Your task to perform on an android device: Add "macbook pro 15 inch" to the cart on ebay, then select checkout. Image 0: 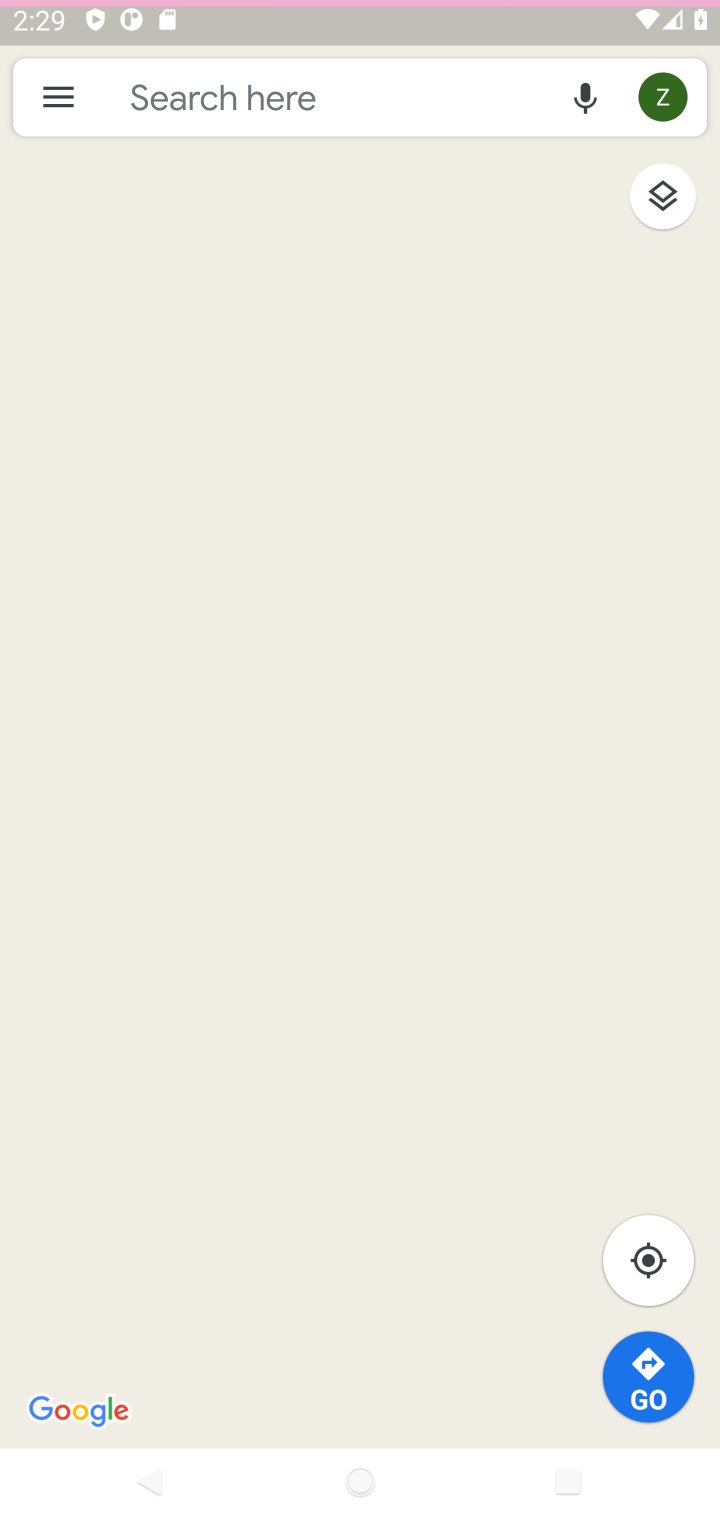
Step 0: press home button
Your task to perform on an android device: Add "macbook pro 15 inch" to the cart on ebay, then select checkout. Image 1: 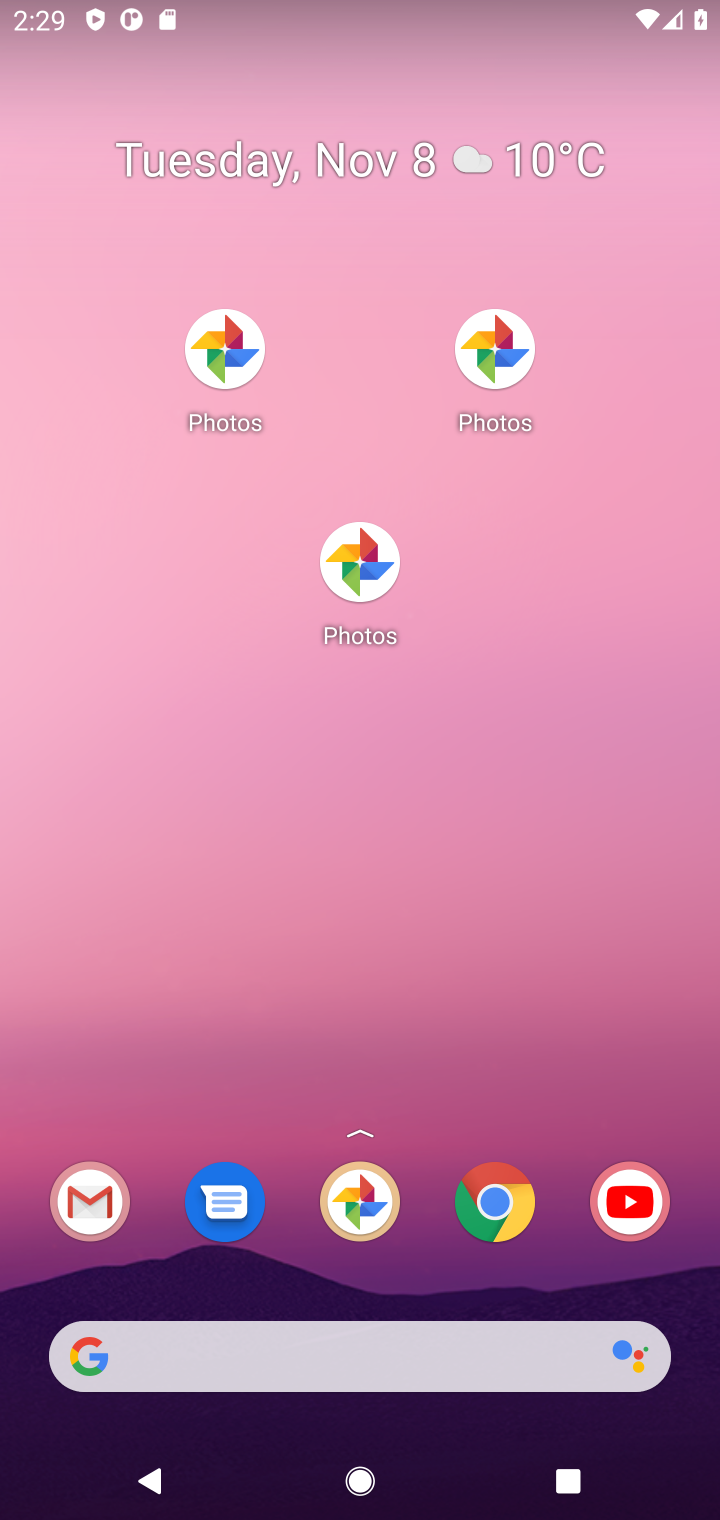
Step 1: drag from (415, 1147) to (431, 479)
Your task to perform on an android device: Add "macbook pro 15 inch" to the cart on ebay, then select checkout. Image 2: 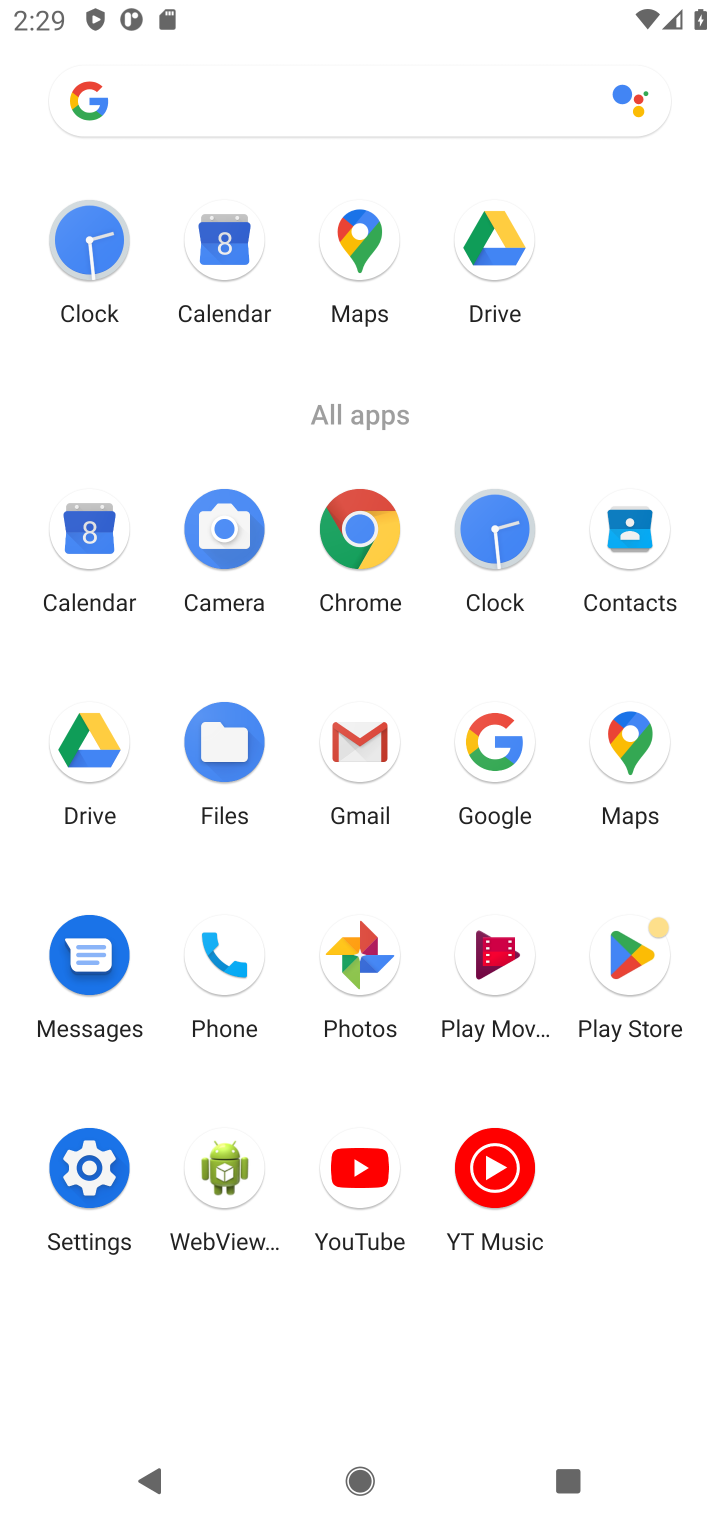
Step 2: click (503, 760)
Your task to perform on an android device: Add "macbook pro 15 inch" to the cart on ebay, then select checkout. Image 3: 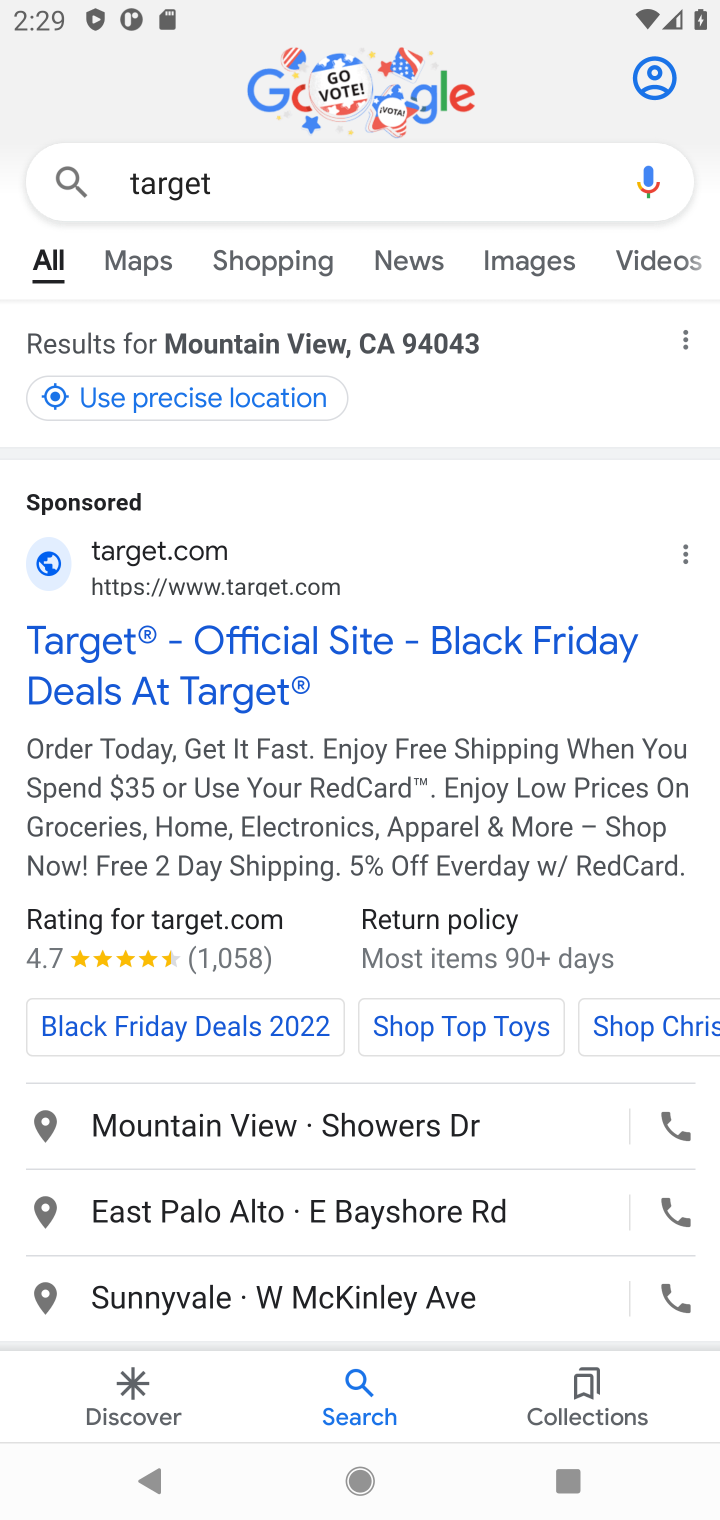
Step 3: click (477, 192)
Your task to perform on an android device: Add "macbook pro 15 inch" to the cart on ebay, then select checkout. Image 4: 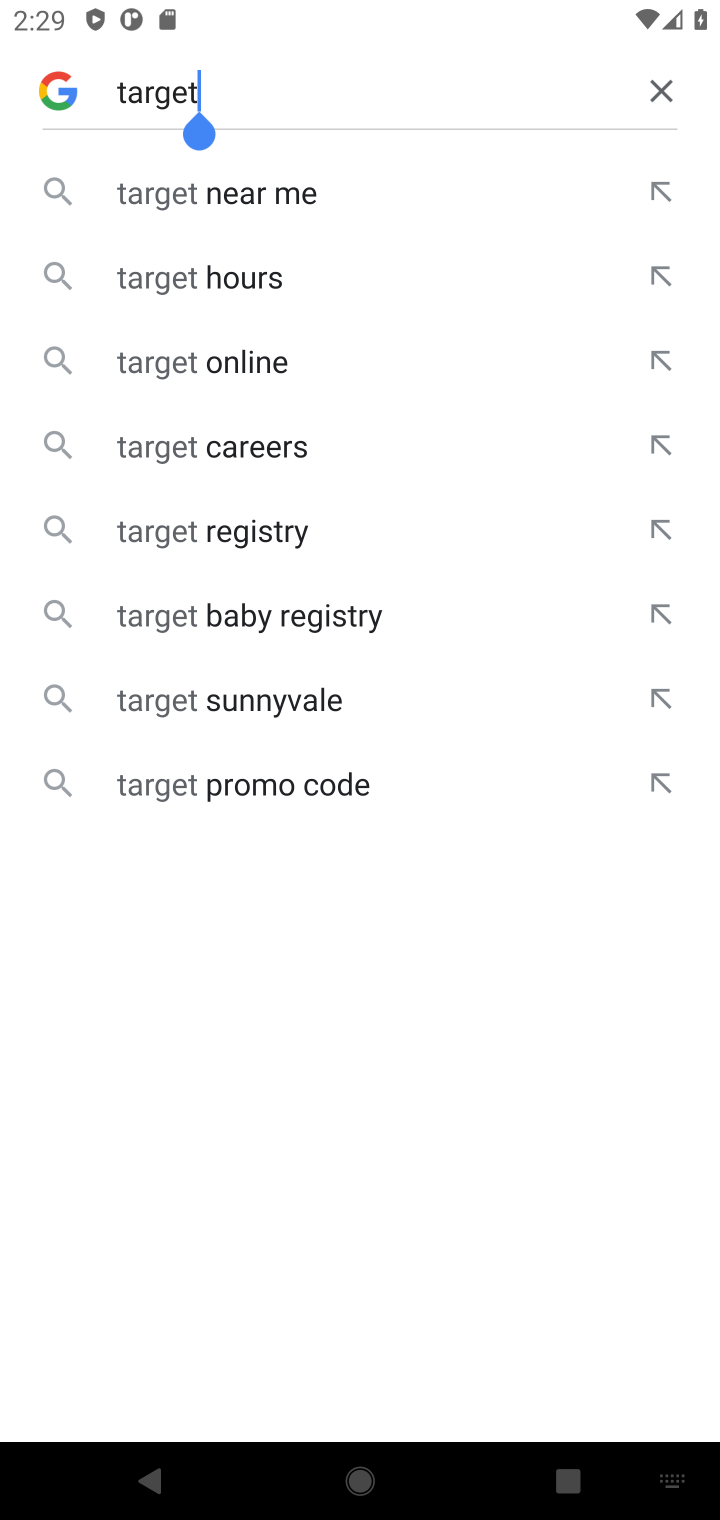
Step 4: click (659, 92)
Your task to perform on an android device: Add "macbook pro 15 inch" to the cart on ebay, then select checkout. Image 5: 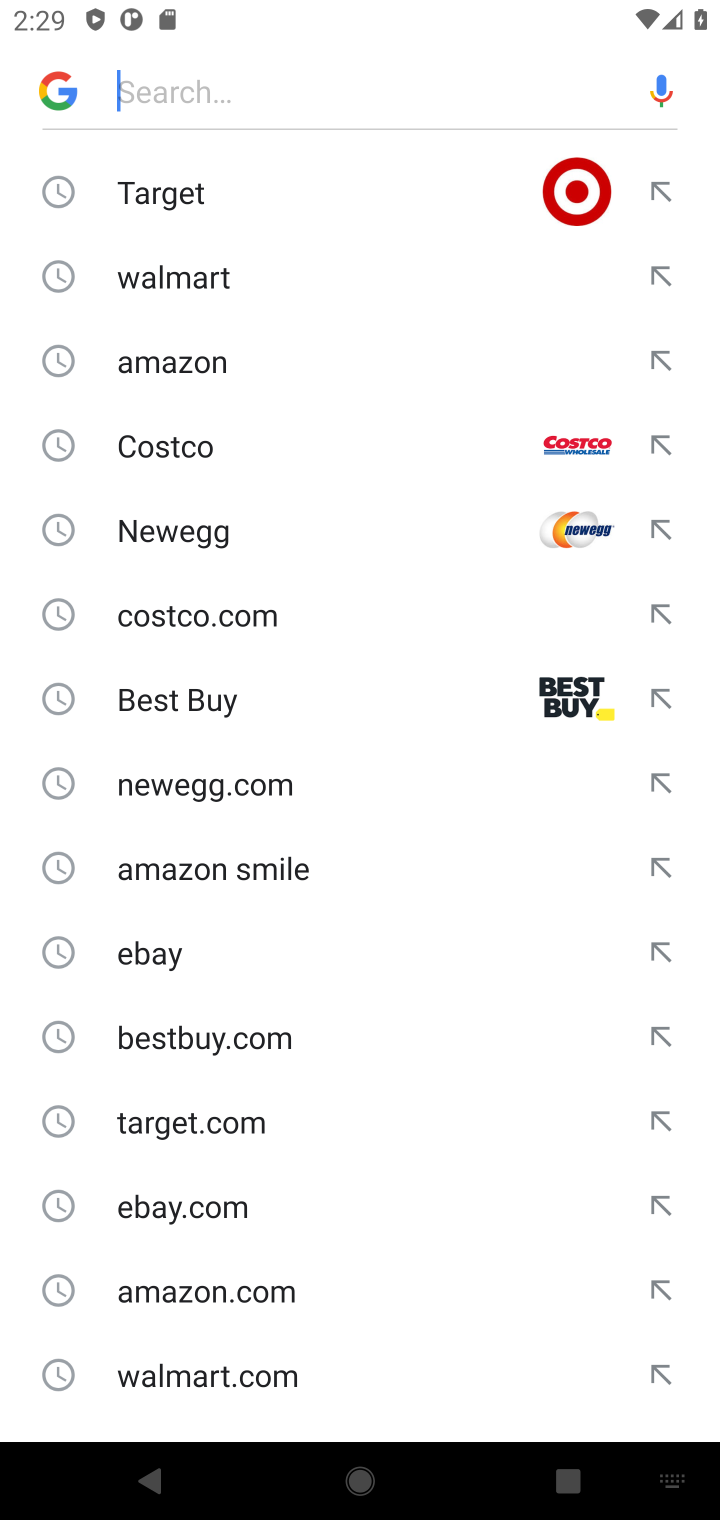
Step 5: type "ebay"
Your task to perform on an android device: Add "macbook pro 15 inch" to the cart on ebay, then select checkout. Image 6: 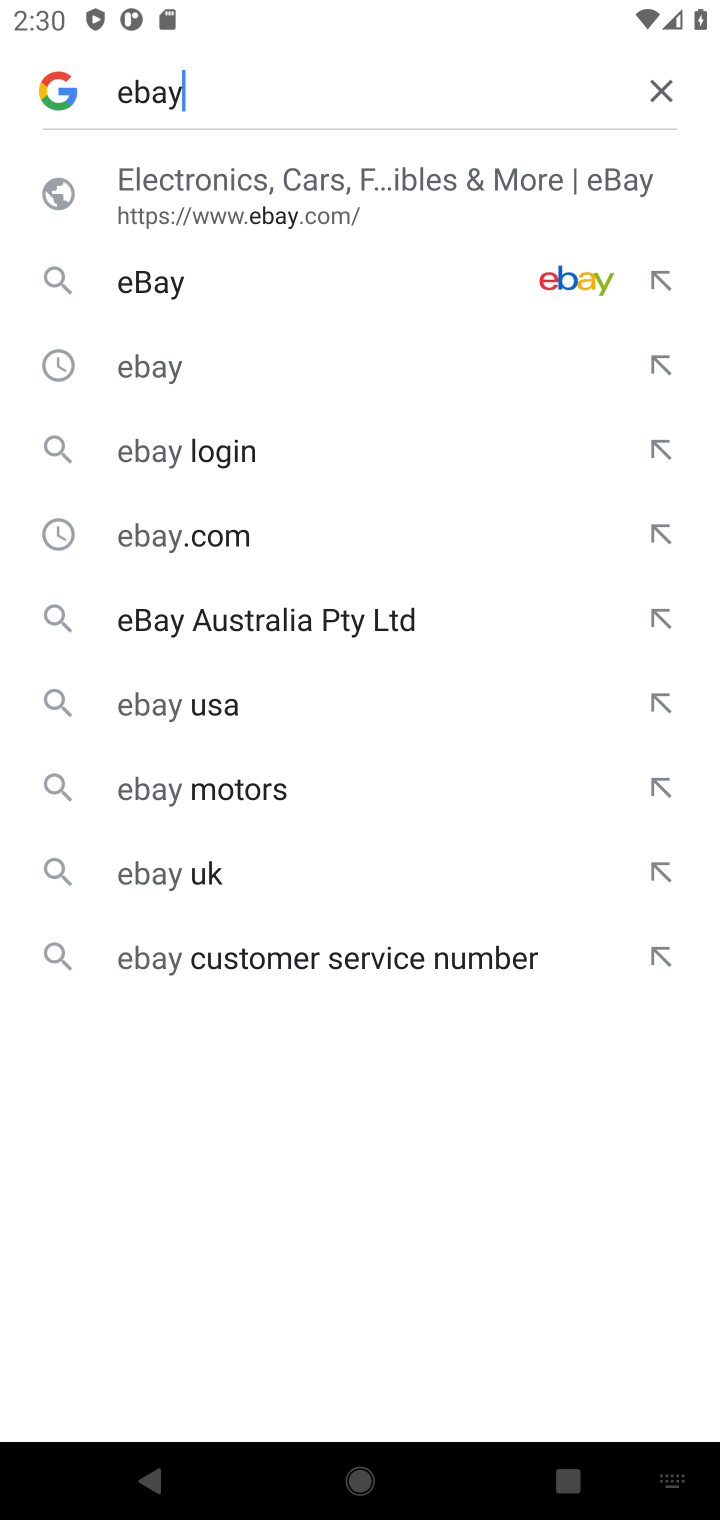
Step 6: click (330, 201)
Your task to perform on an android device: Add "macbook pro 15 inch" to the cart on ebay, then select checkout. Image 7: 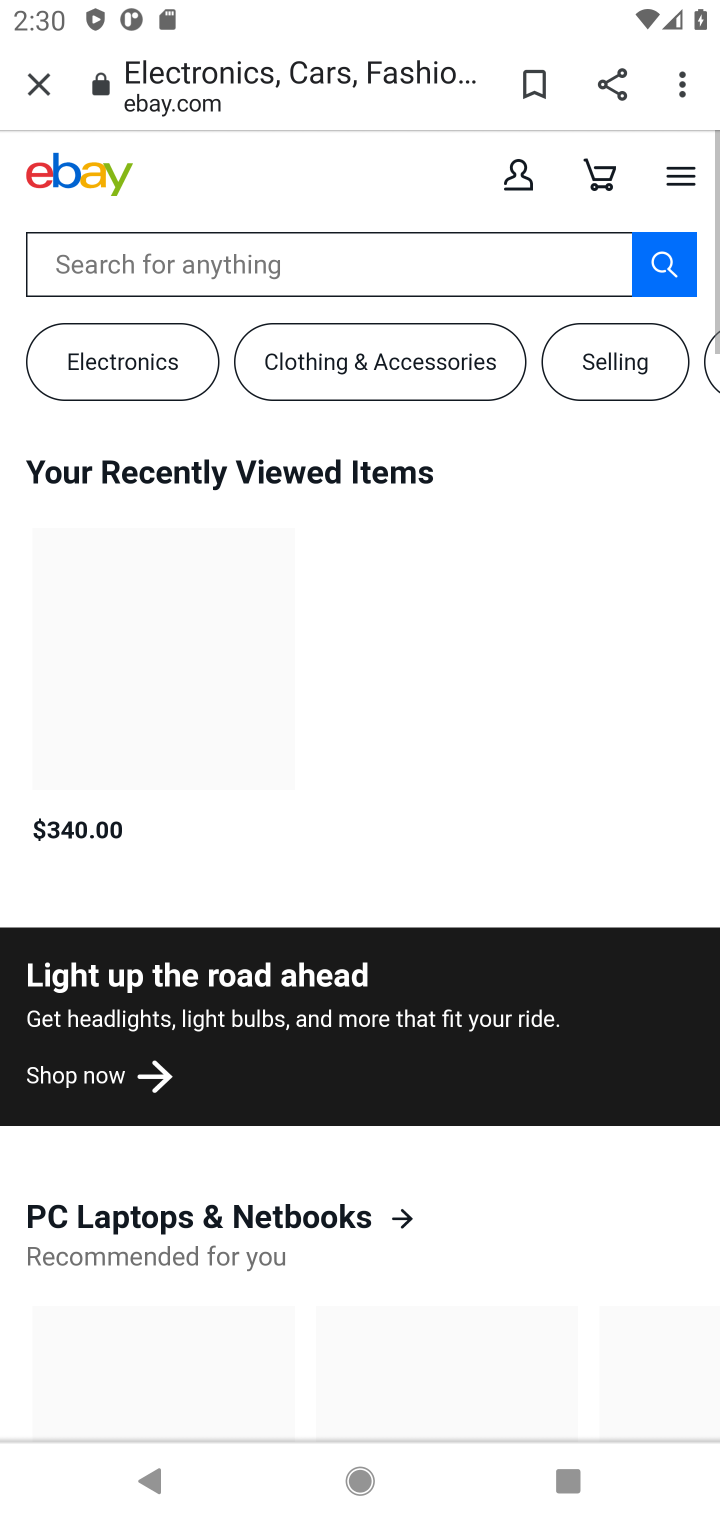
Step 7: click (330, 201)
Your task to perform on an android device: Add "macbook pro 15 inch" to the cart on ebay, then select checkout. Image 8: 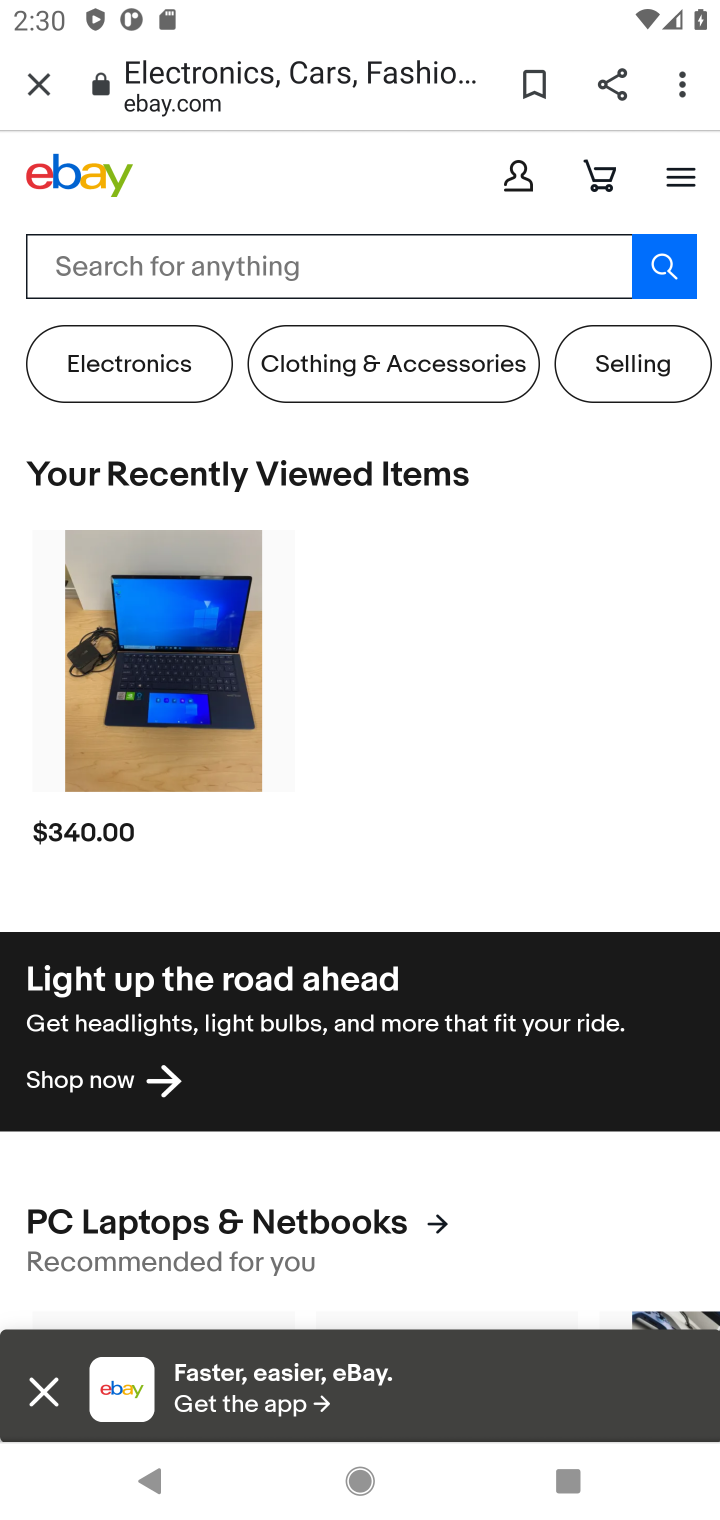
Step 8: click (428, 260)
Your task to perform on an android device: Add "macbook pro 15 inch" to the cart on ebay, then select checkout. Image 9: 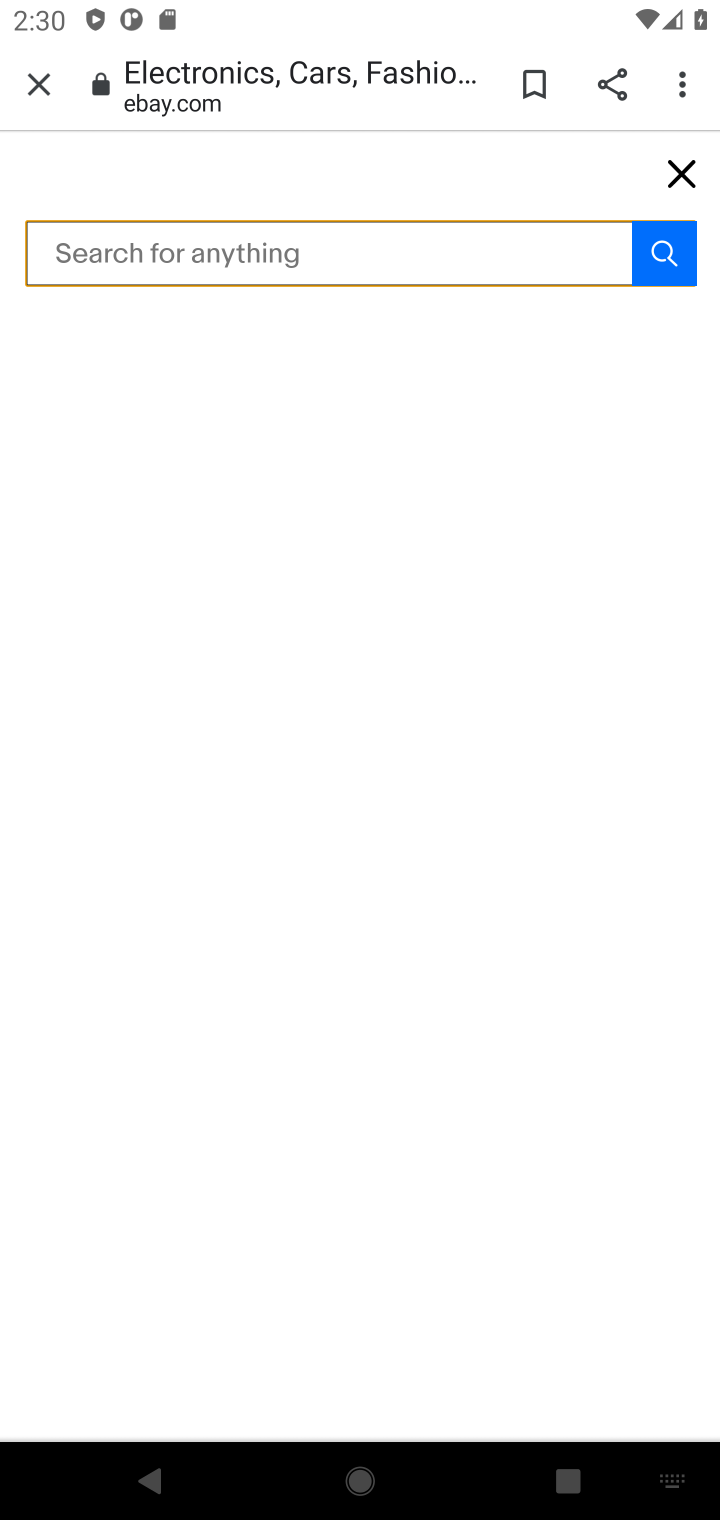
Step 9: type "macbook pro 15 inch"
Your task to perform on an android device: Add "macbook pro 15 inch" to the cart on ebay, then select checkout. Image 10: 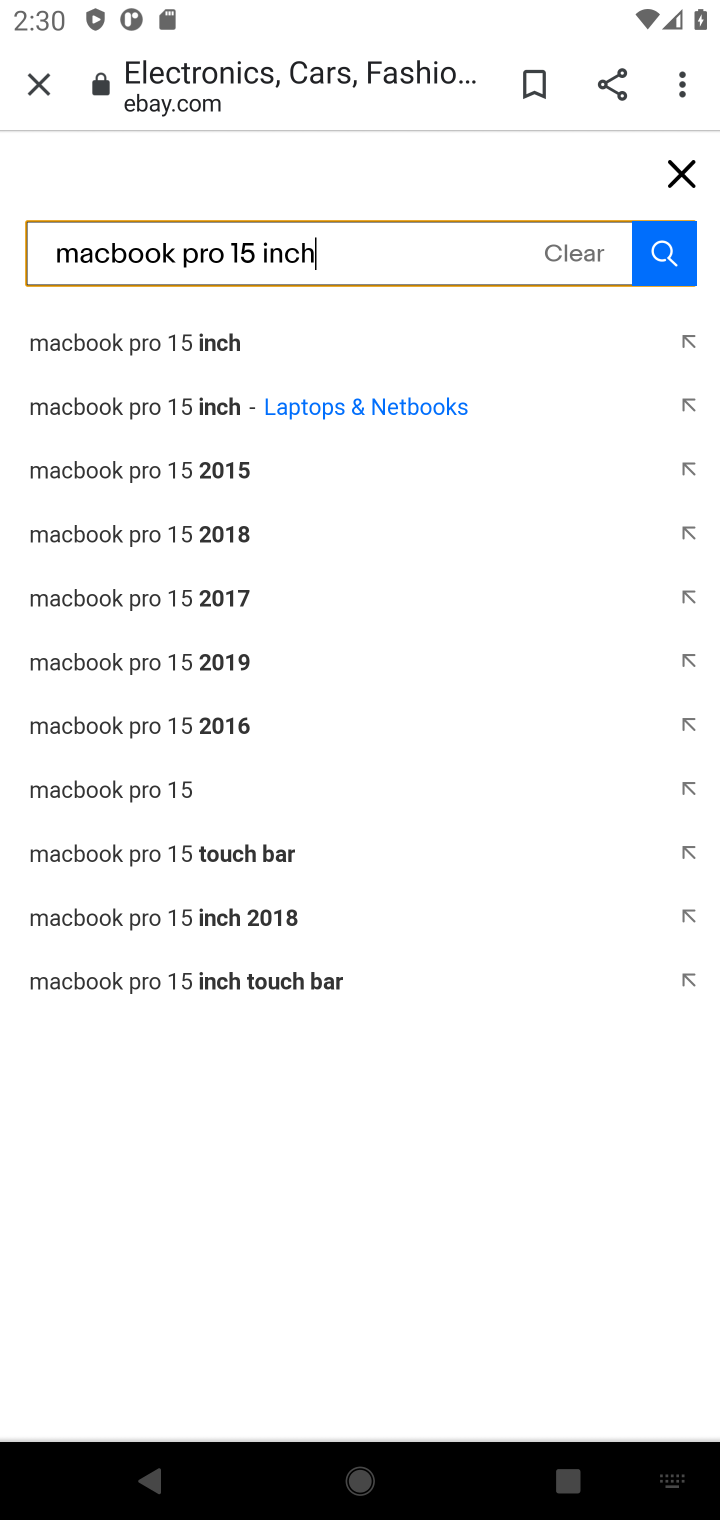
Step 10: click (201, 339)
Your task to perform on an android device: Add "macbook pro 15 inch" to the cart on ebay, then select checkout. Image 11: 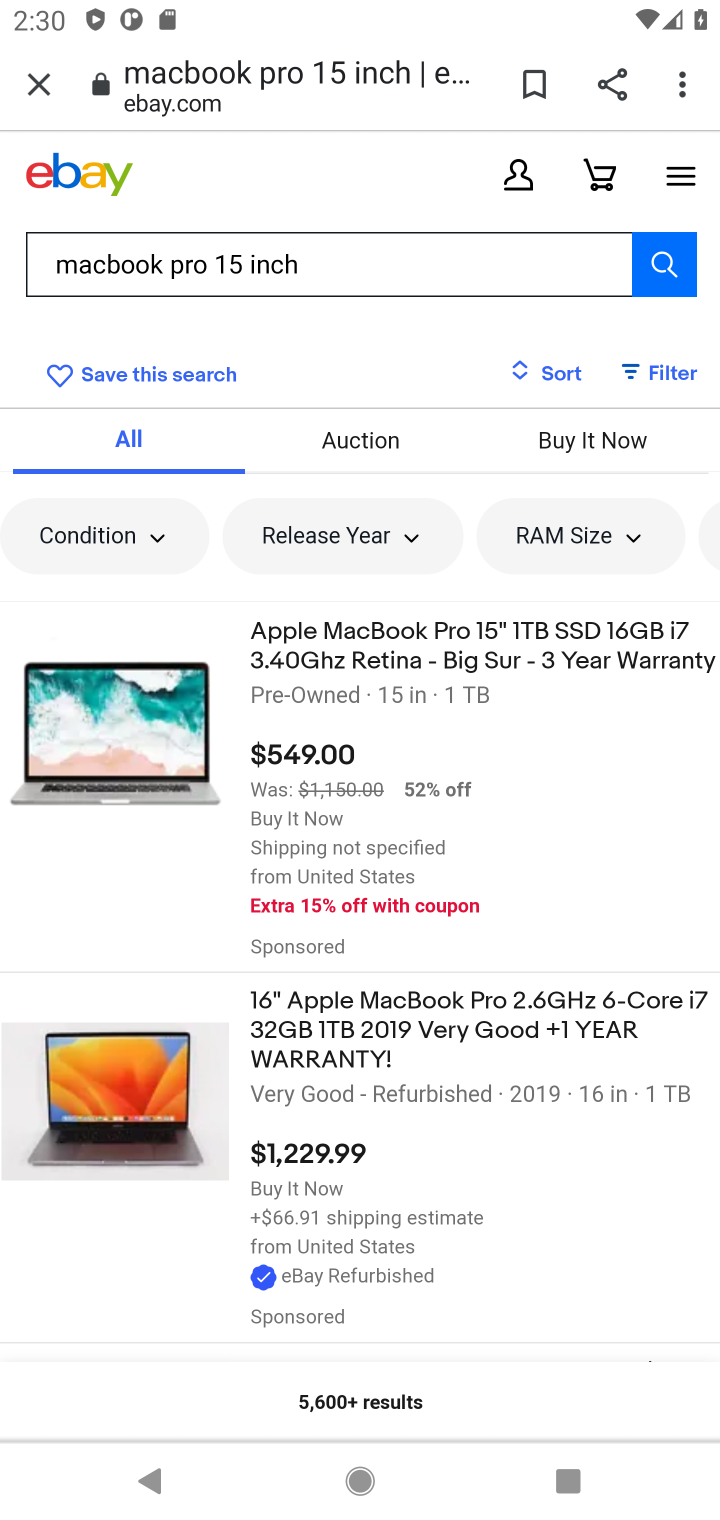
Step 11: click (315, 654)
Your task to perform on an android device: Add "macbook pro 15 inch" to the cart on ebay, then select checkout. Image 12: 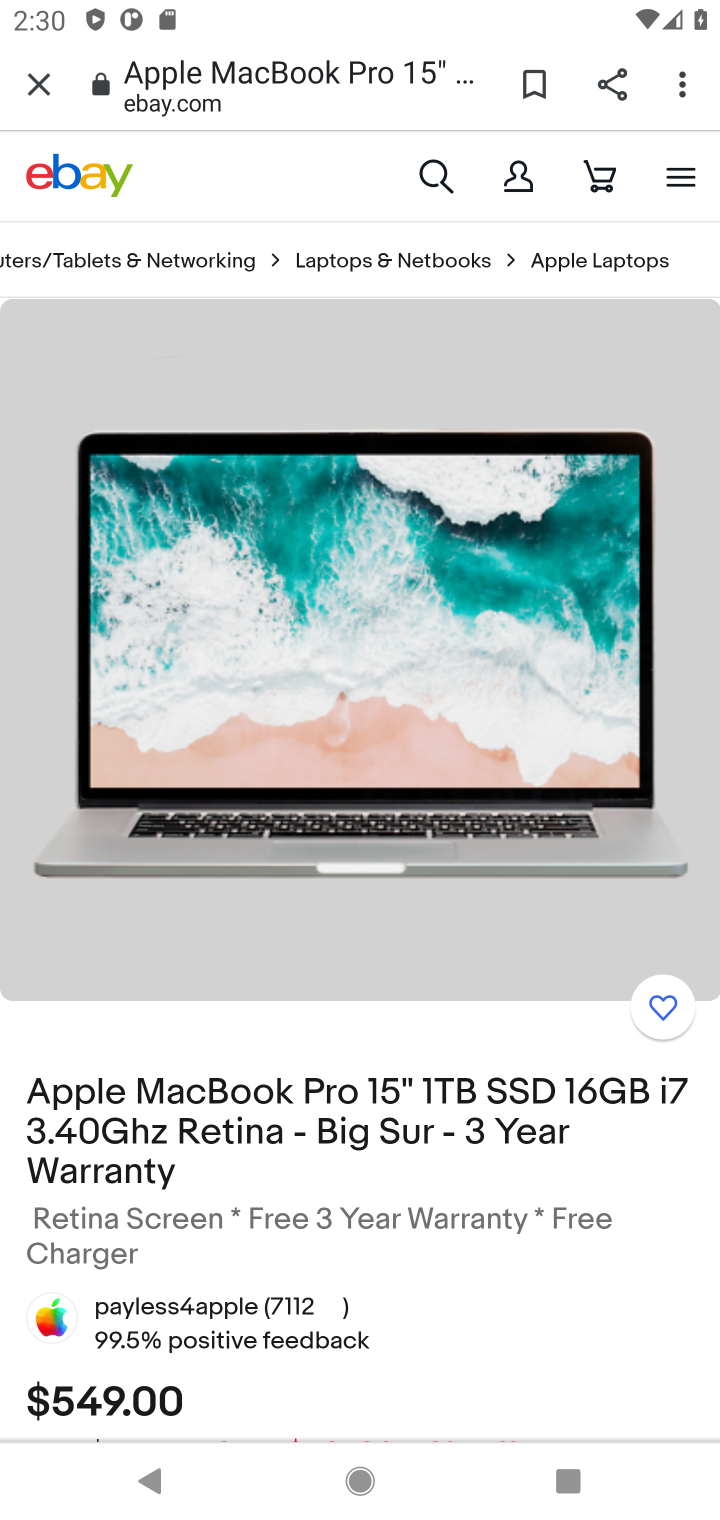
Step 12: drag from (445, 1129) to (465, 597)
Your task to perform on an android device: Add "macbook pro 15 inch" to the cart on ebay, then select checkout. Image 13: 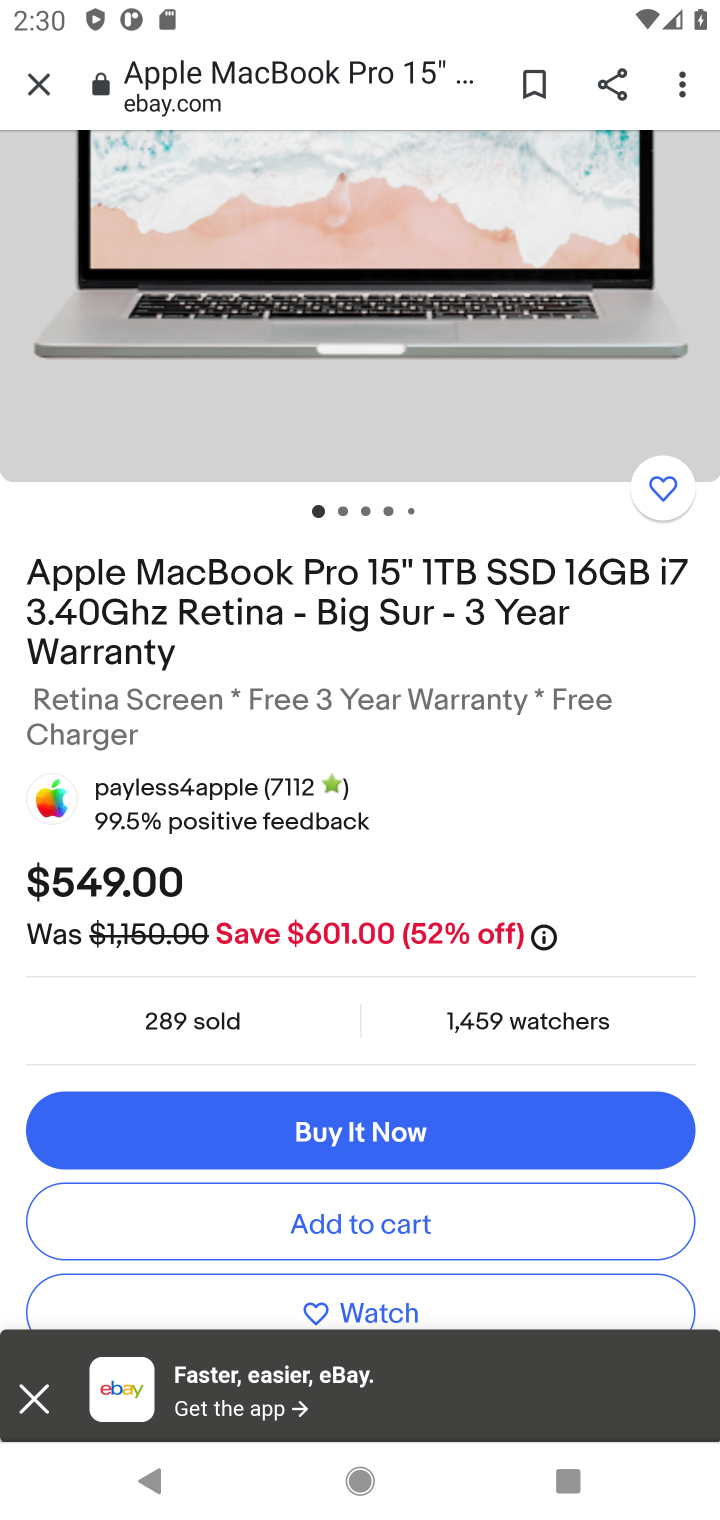
Step 13: click (429, 1252)
Your task to perform on an android device: Add "macbook pro 15 inch" to the cart on ebay, then select checkout. Image 14: 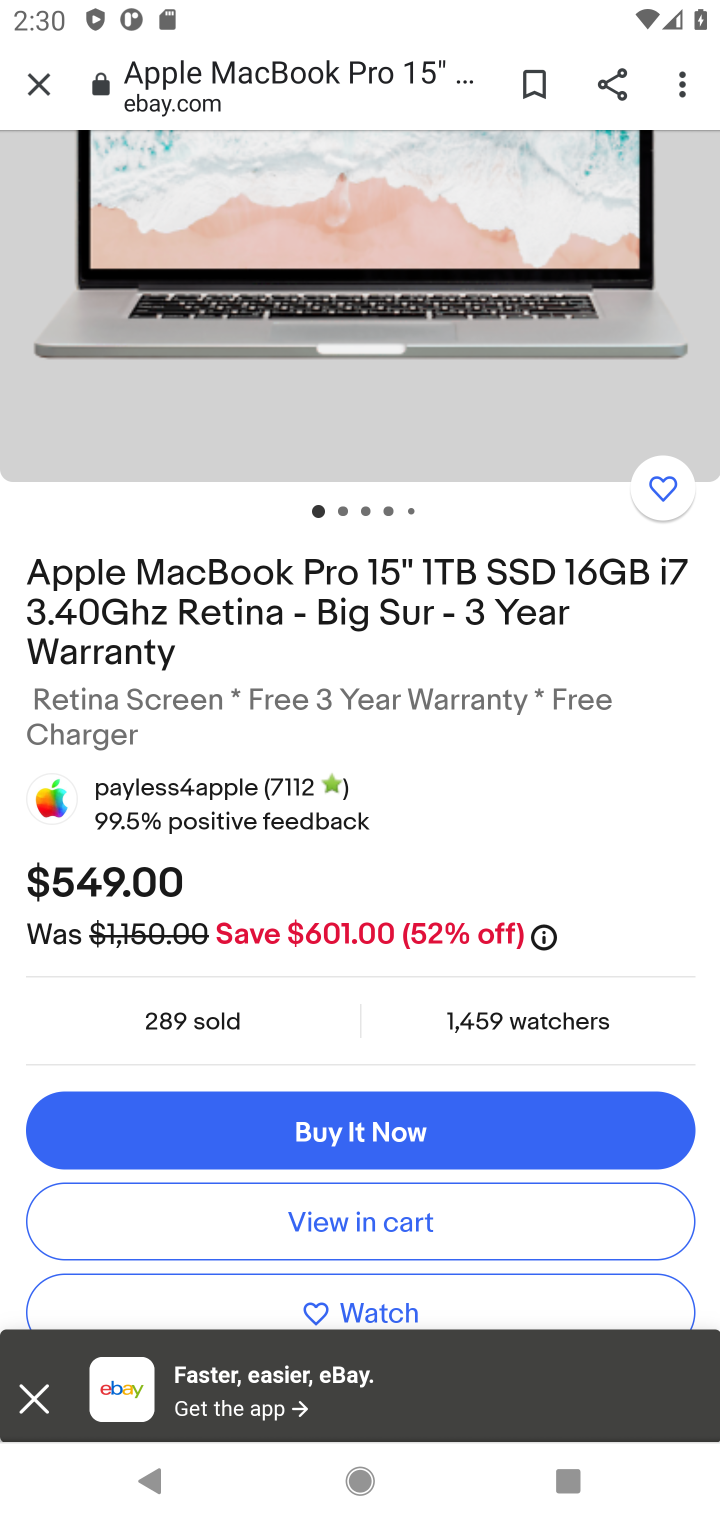
Step 14: click (455, 1216)
Your task to perform on an android device: Add "macbook pro 15 inch" to the cart on ebay, then select checkout. Image 15: 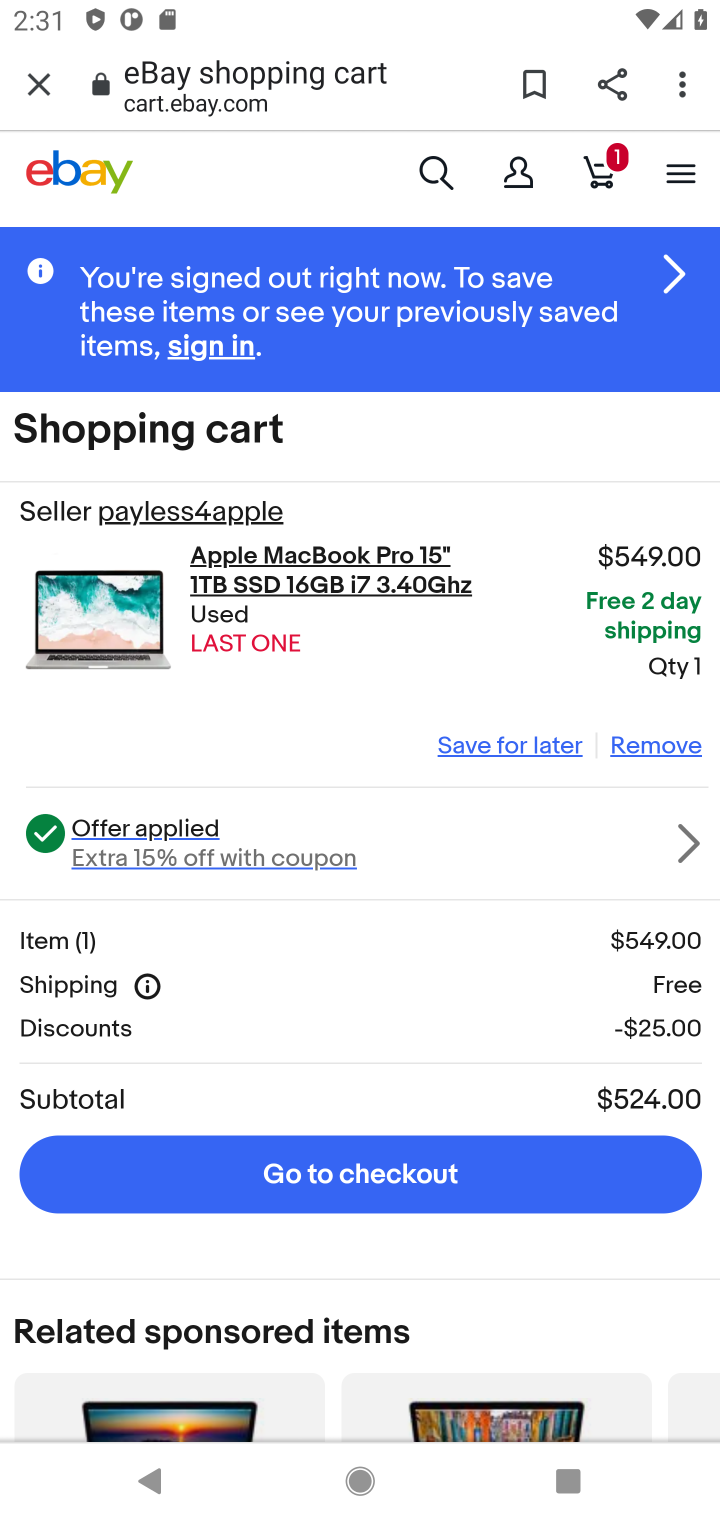
Step 15: task complete